Your task to perform on an android device: turn on improve location accuracy Image 0: 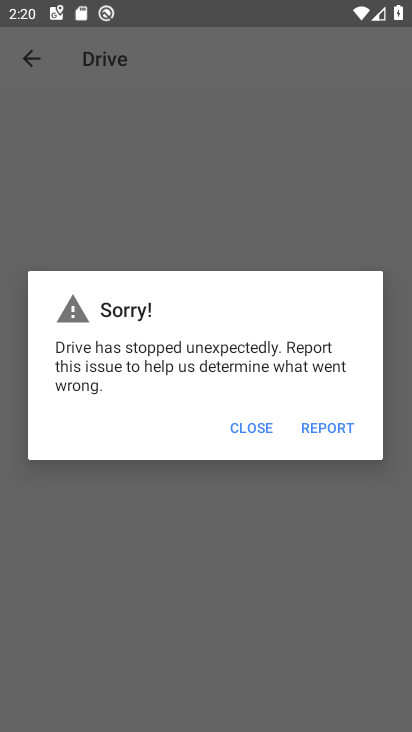
Step 0: press home button
Your task to perform on an android device: turn on improve location accuracy Image 1: 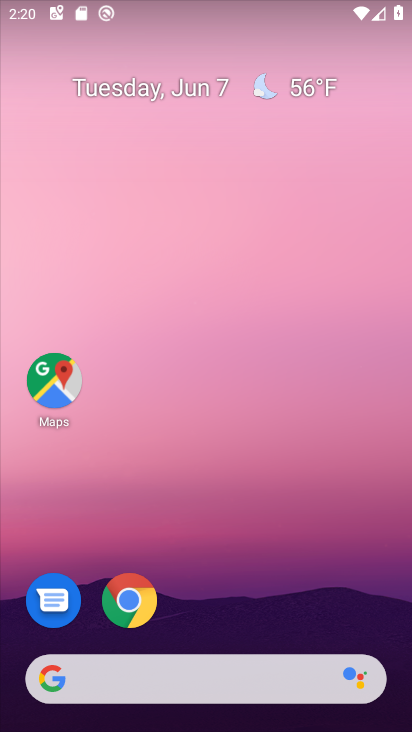
Step 1: drag from (245, 610) to (407, 5)
Your task to perform on an android device: turn on improve location accuracy Image 2: 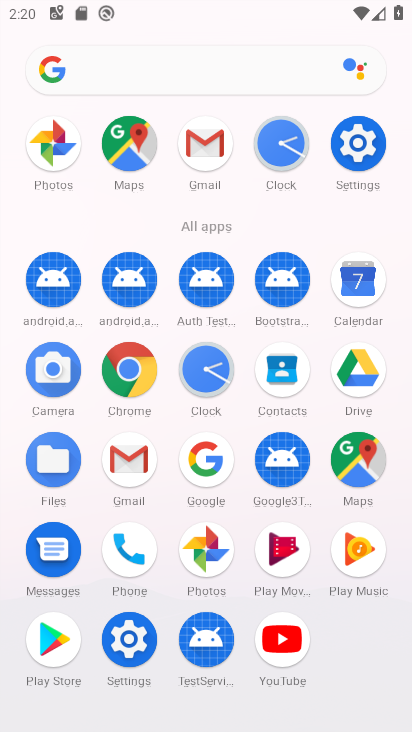
Step 2: click (142, 653)
Your task to perform on an android device: turn on improve location accuracy Image 3: 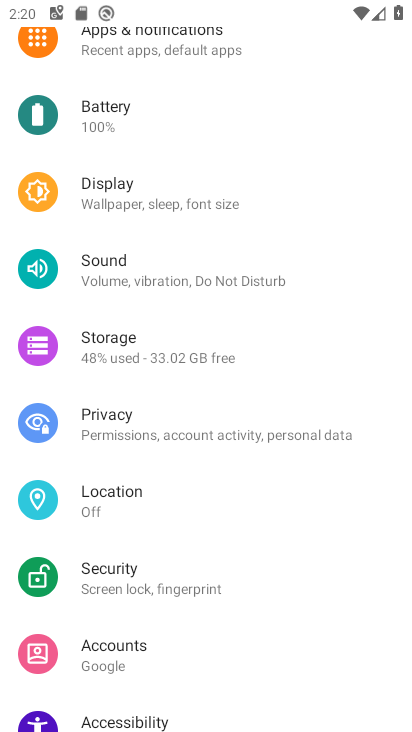
Step 3: click (123, 505)
Your task to perform on an android device: turn on improve location accuracy Image 4: 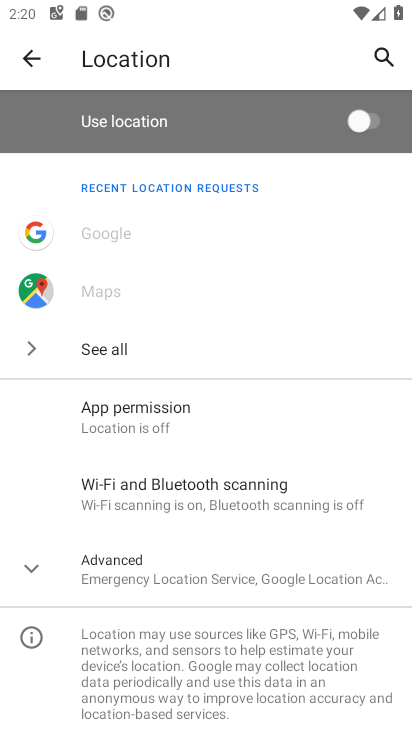
Step 4: click (200, 588)
Your task to perform on an android device: turn on improve location accuracy Image 5: 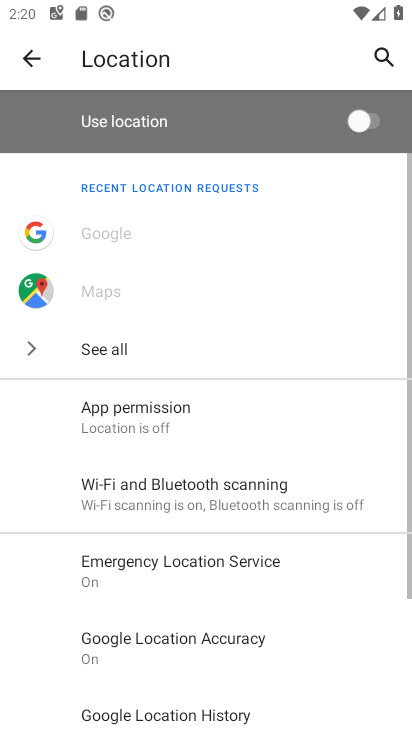
Step 5: drag from (185, 614) to (205, 466)
Your task to perform on an android device: turn on improve location accuracy Image 6: 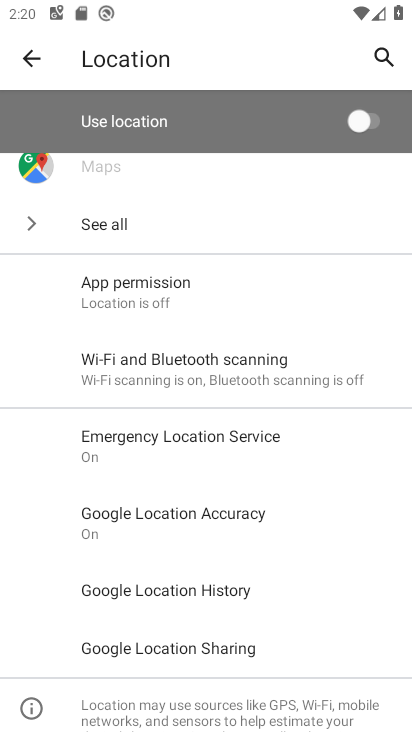
Step 6: click (189, 527)
Your task to perform on an android device: turn on improve location accuracy Image 7: 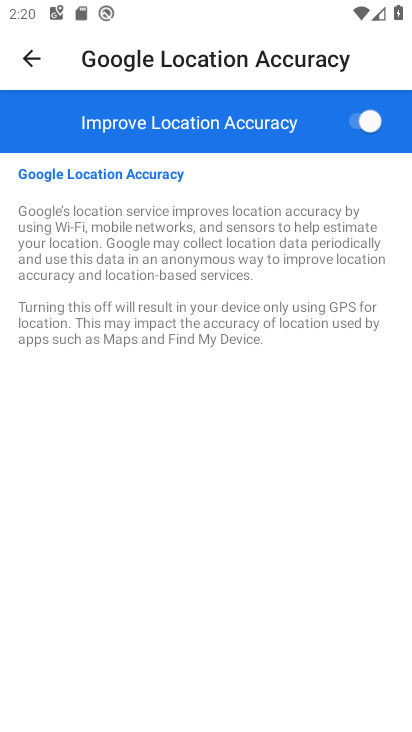
Step 7: task complete